Your task to perform on an android device: Go to Reddit.com Image 0: 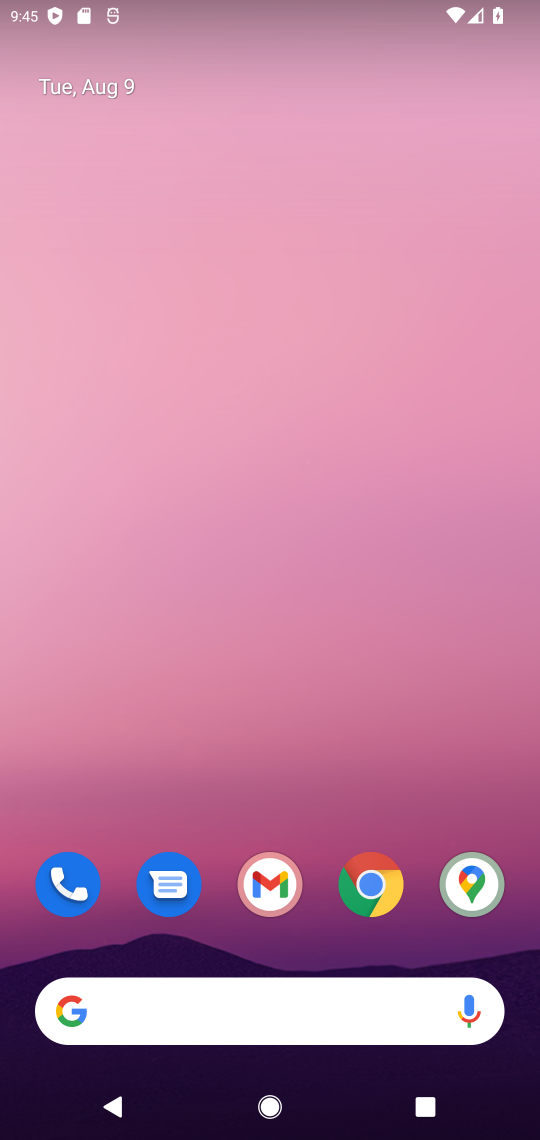
Step 0: click (376, 886)
Your task to perform on an android device: Go to Reddit.com Image 1: 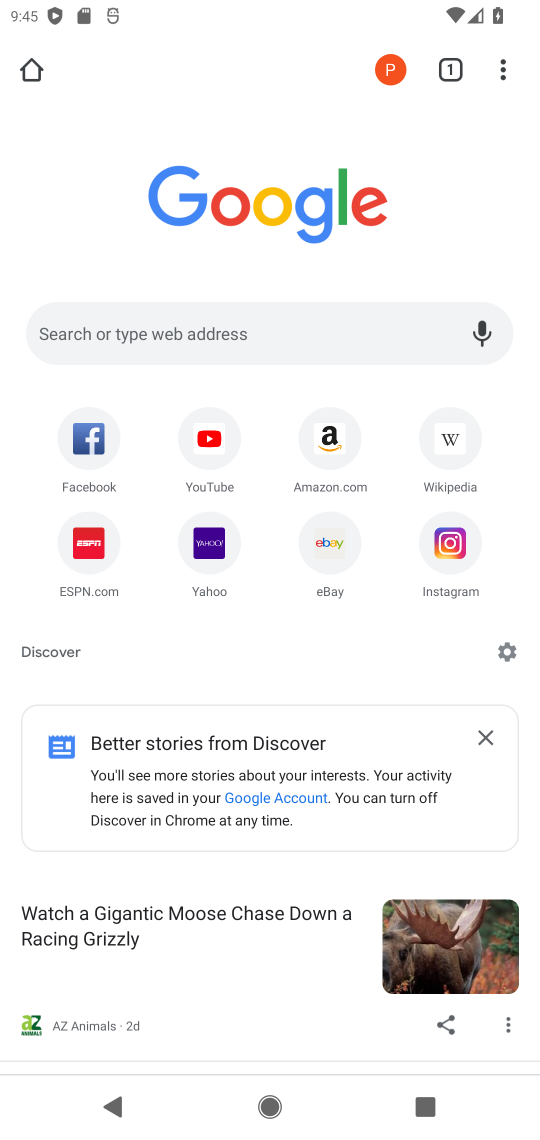
Step 1: click (305, 333)
Your task to perform on an android device: Go to Reddit.com Image 2: 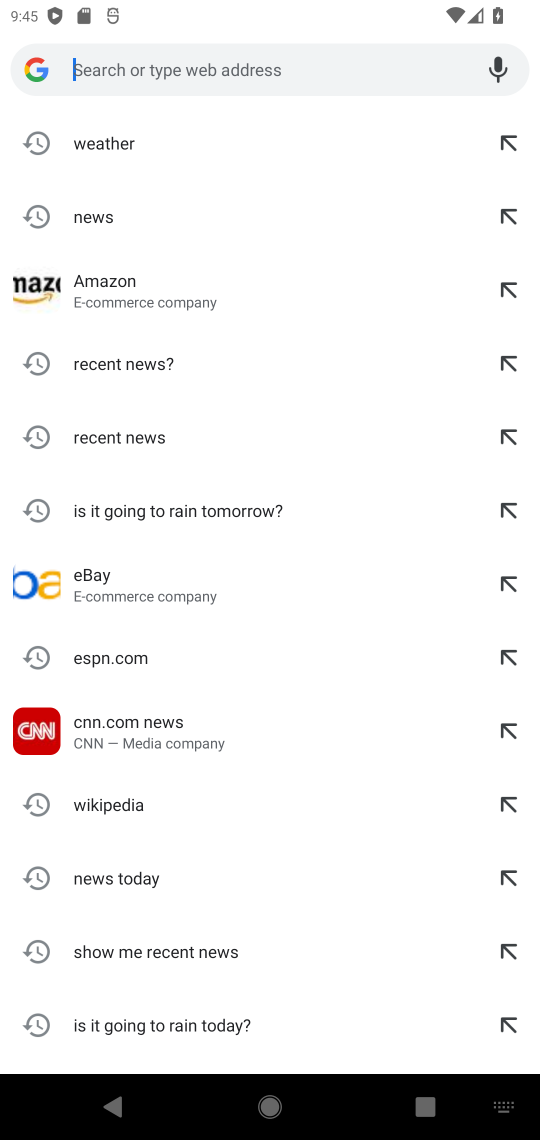
Step 2: type "Reddit.com"
Your task to perform on an android device: Go to Reddit.com Image 3: 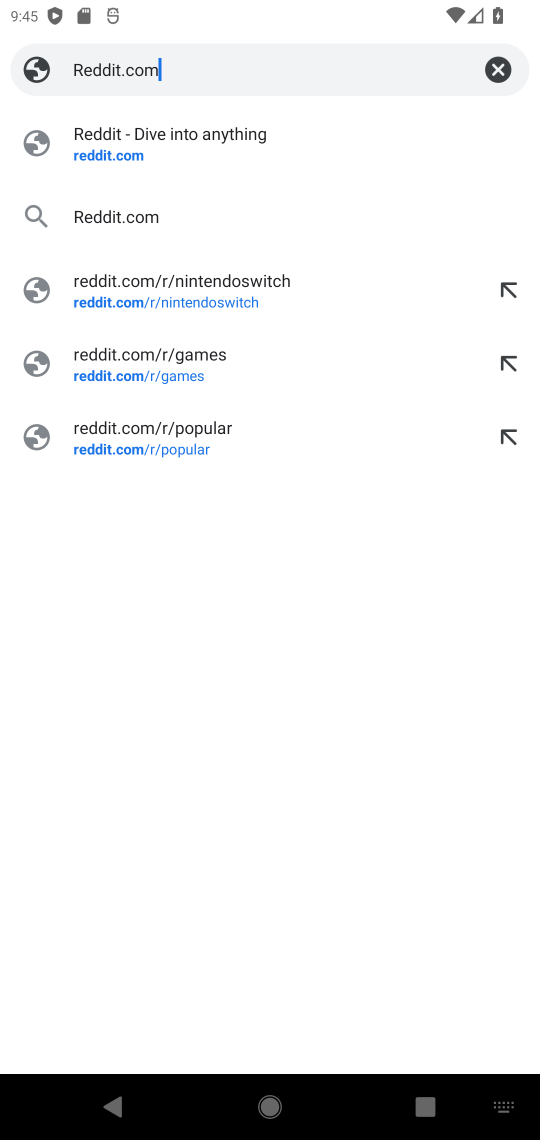
Step 3: click (145, 216)
Your task to perform on an android device: Go to Reddit.com Image 4: 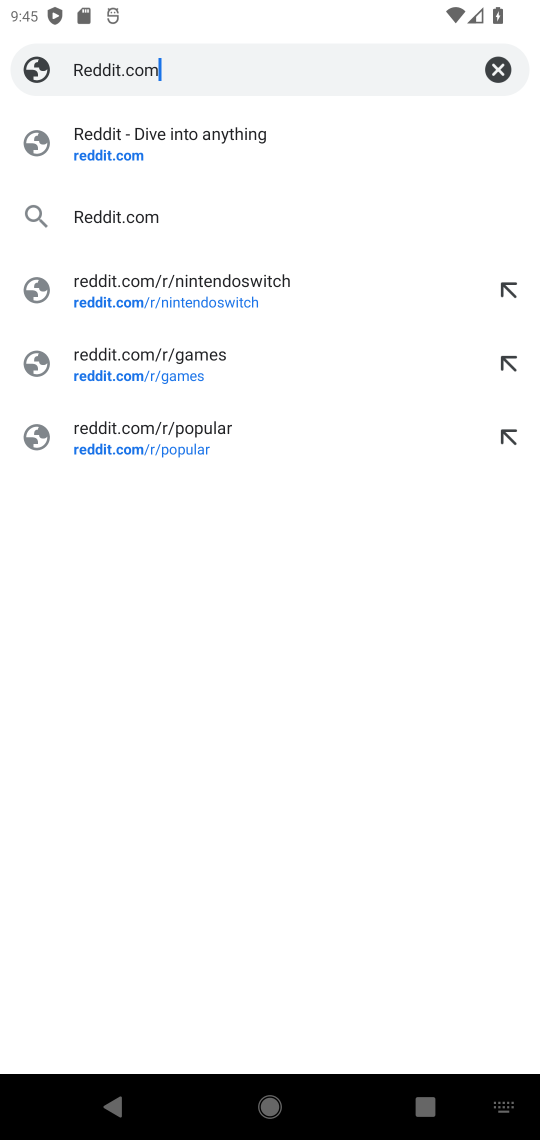
Step 4: click (145, 216)
Your task to perform on an android device: Go to Reddit.com Image 5: 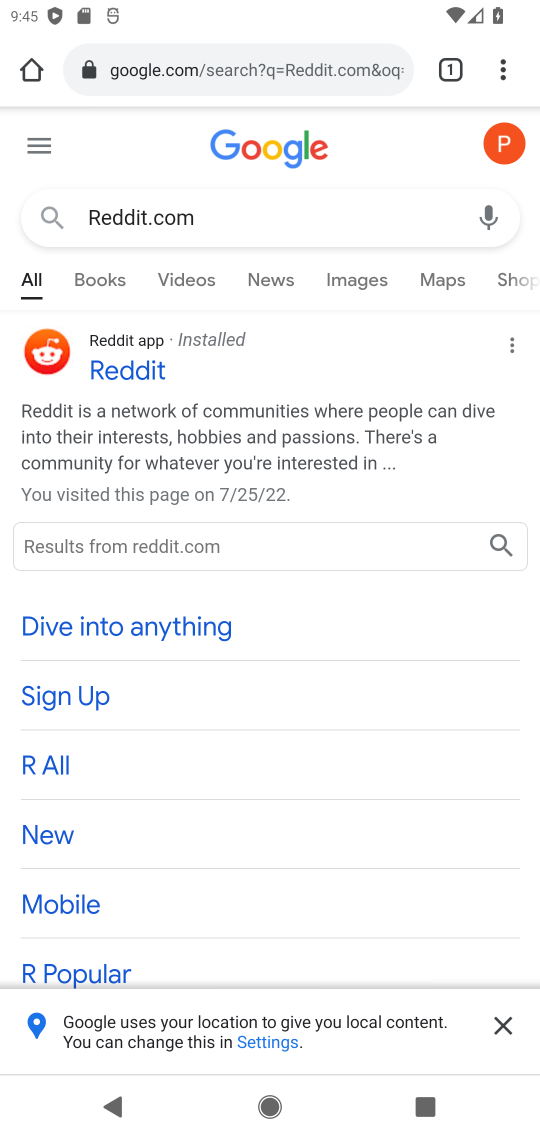
Step 5: click (131, 355)
Your task to perform on an android device: Go to Reddit.com Image 6: 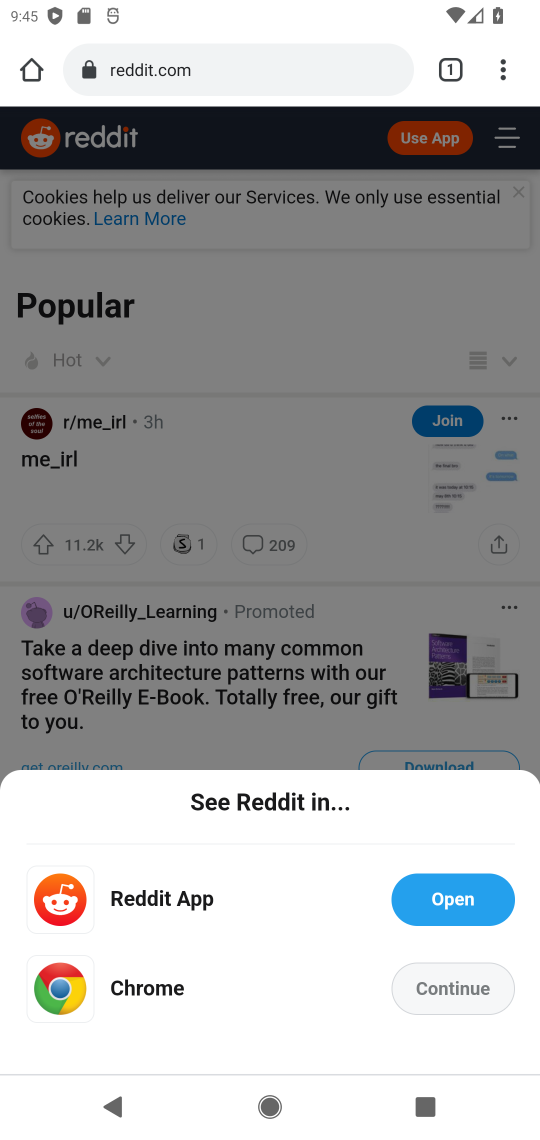
Step 6: click (457, 990)
Your task to perform on an android device: Go to Reddit.com Image 7: 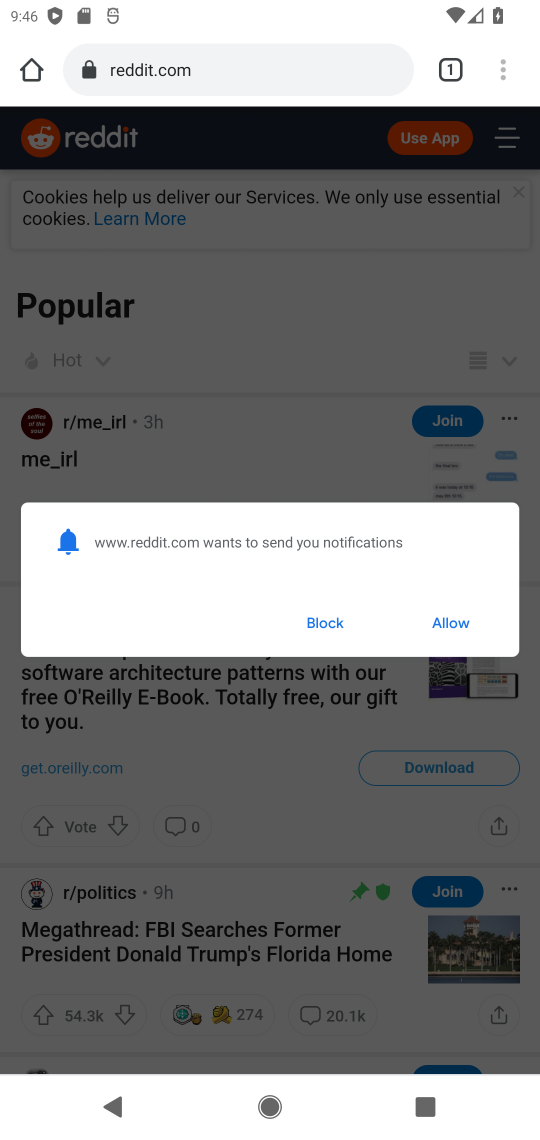
Step 7: click (451, 630)
Your task to perform on an android device: Go to Reddit.com Image 8: 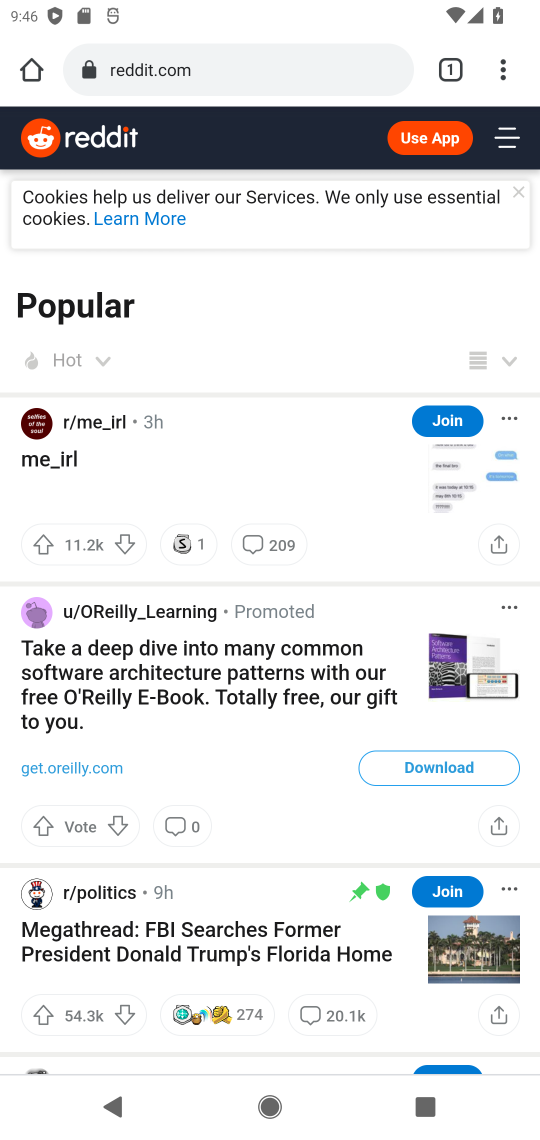
Step 8: task complete